Your task to perform on an android device: set an alarm Image 0: 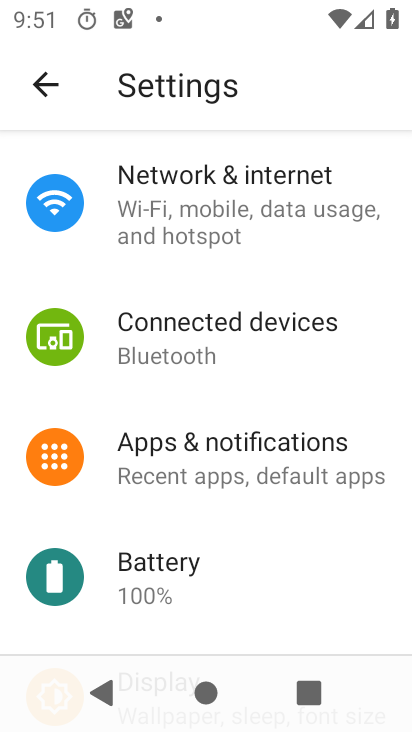
Step 0: press home button
Your task to perform on an android device: set an alarm Image 1: 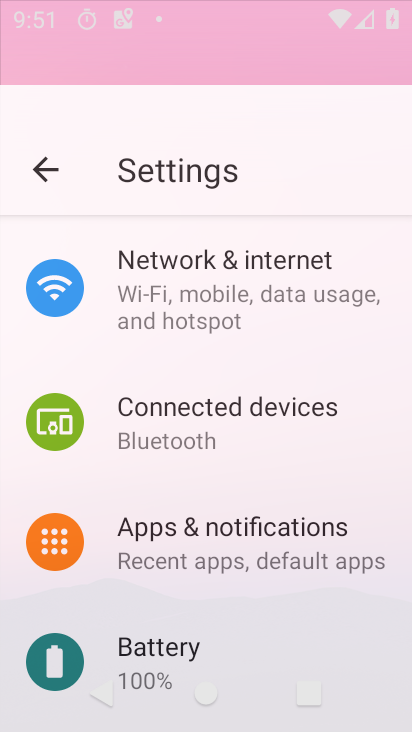
Step 1: drag from (207, 479) to (264, 35)
Your task to perform on an android device: set an alarm Image 2: 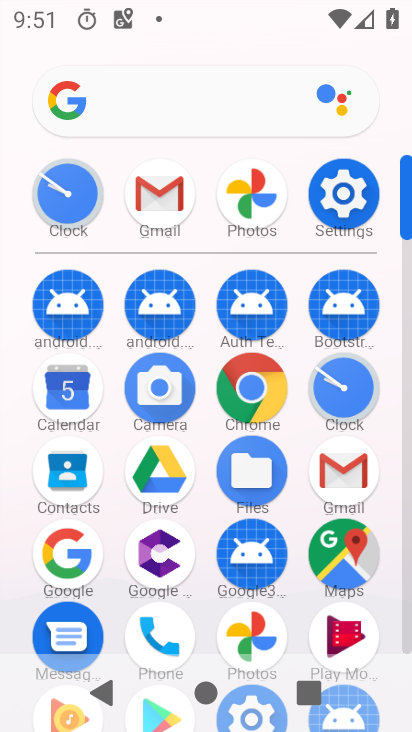
Step 2: click (342, 379)
Your task to perform on an android device: set an alarm Image 3: 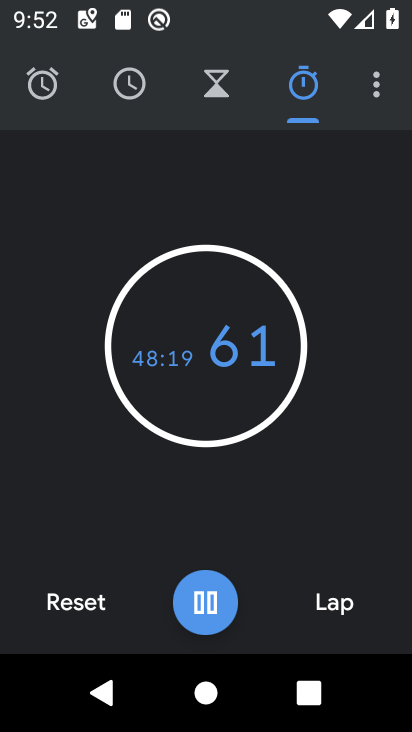
Step 3: click (57, 606)
Your task to perform on an android device: set an alarm Image 4: 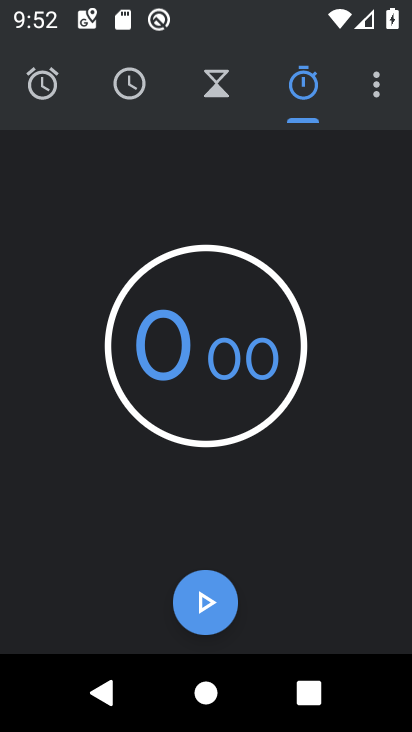
Step 4: click (50, 96)
Your task to perform on an android device: set an alarm Image 5: 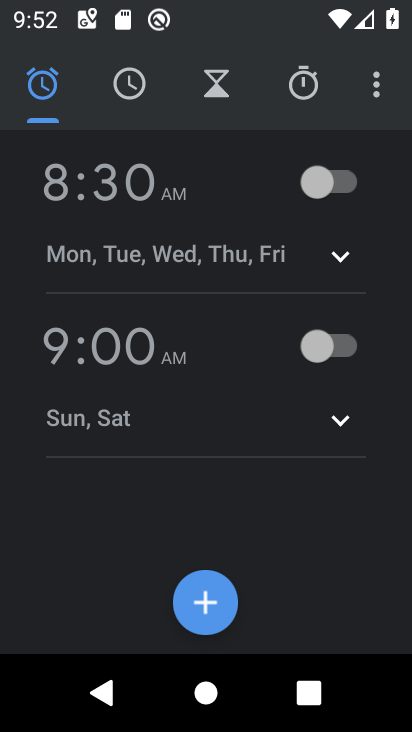
Step 5: click (319, 174)
Your task to perform on an android device: set an alarm Image 6: 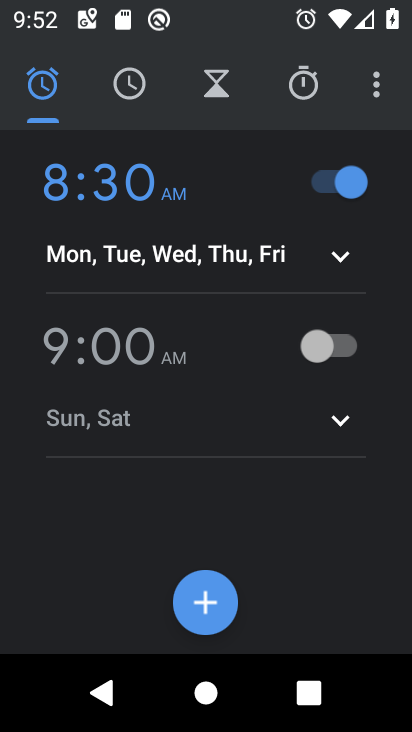
Step 6: drag from (184, 450) to (286, 86)
Your task to perform on an android device: set an alarm Image 7: 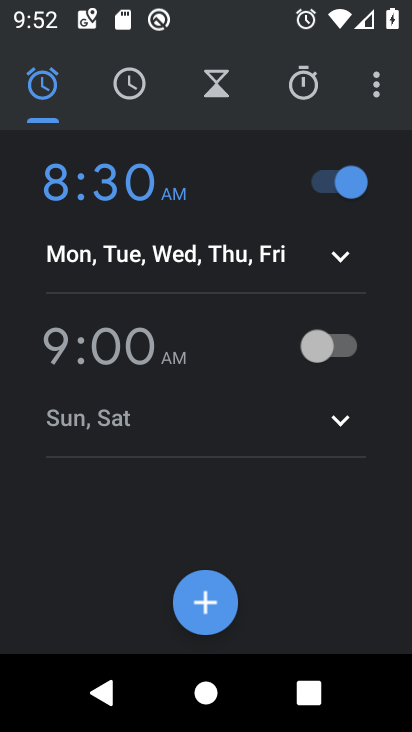
Step 7: click (303, 83)
Your task to perform on an android device: set an alarm Image 8: 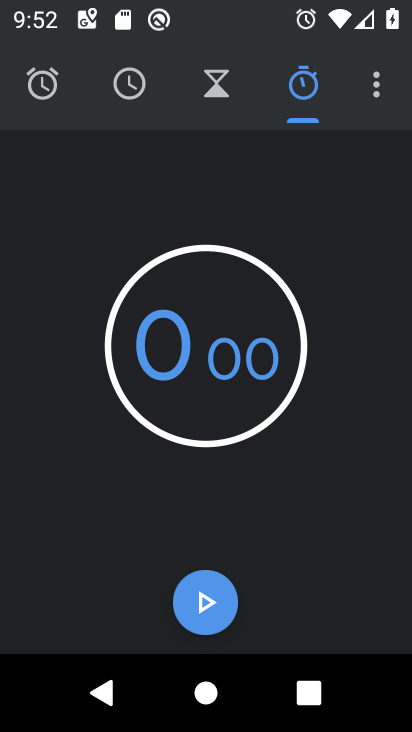
Step 8: click (41, 70)
Your task to perform on an android device: set an alarm Image 9: 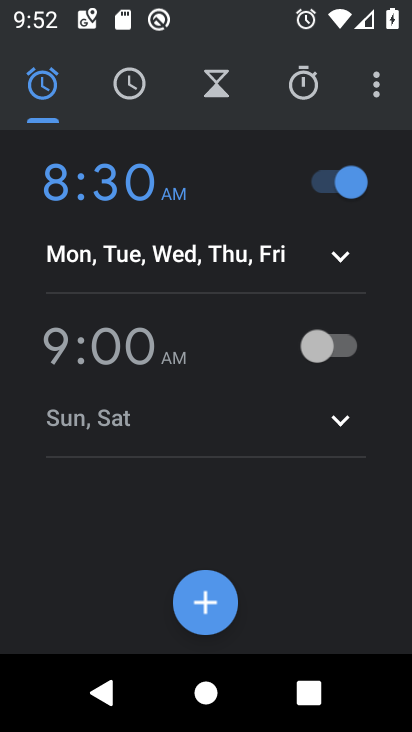
Step 9: task complete